Your task to perform on an android device: Open maps Image 0: 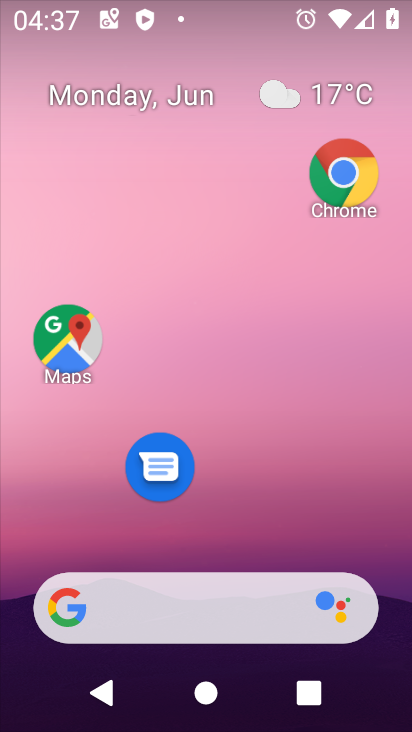
Step 0: click (79, 345)
Your task to perform on an android device: Open maps Image 1: 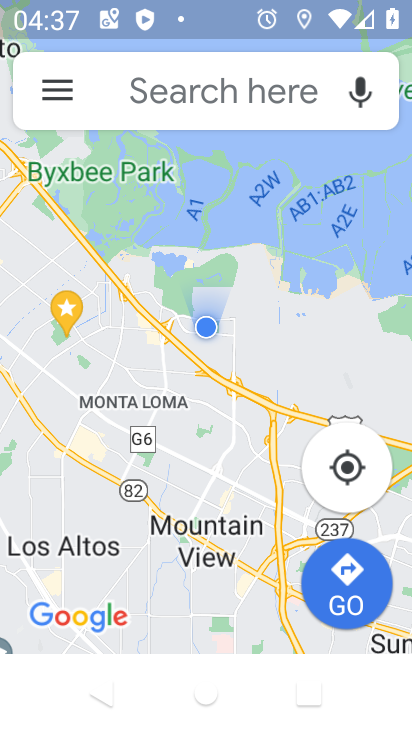
Step 1: task complete